Your task to perform on an android device: Play the last video I watched on Youtube Image 0: 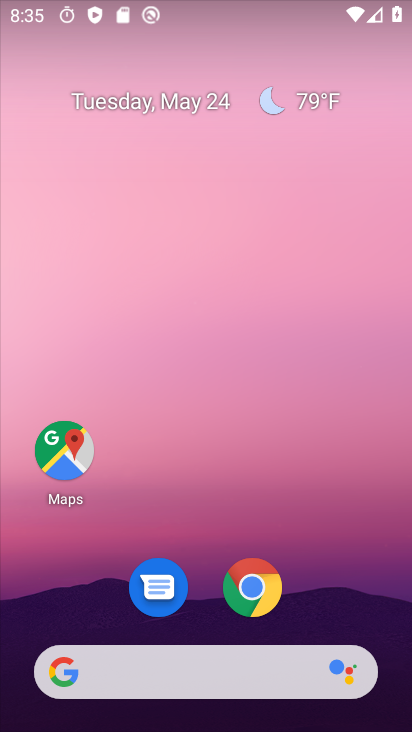
Step 0: drag from (342, 591) to (300, 133)
Your task to perform on an android device: Play the last video I watched on Youtube Image 1: 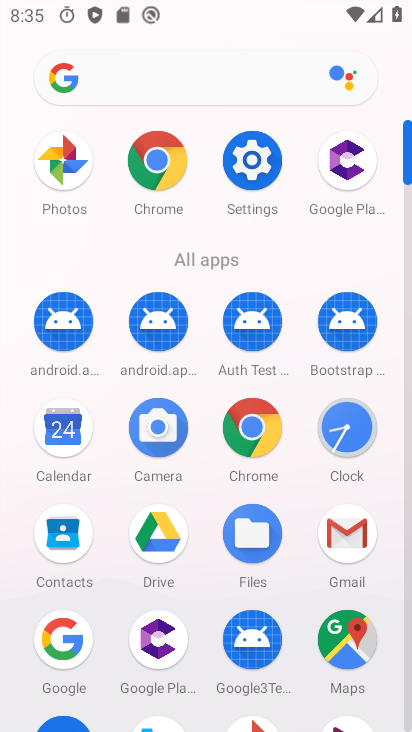
Step 1: drag from (285, 586) to (290, 283)
Your task to perform on an android device: Play the last video I watched on Youtube Image 2: 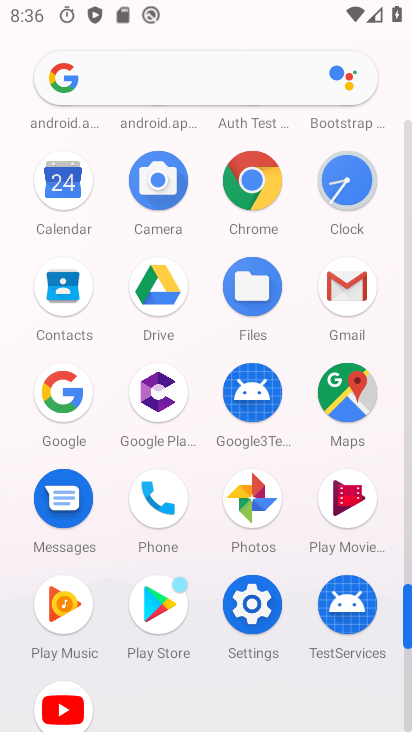
Step 2: drag from (295, 556) to (310, 393)
Your task to perform on an android device: Play the last video I watched on Youtube Image 3: 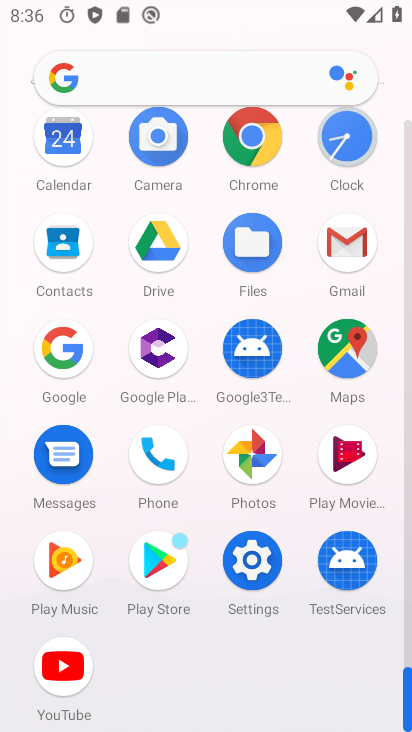
Step 3: click (63, 666)
Your task to perform on an android device: Play the last video I watched on Youtube Image 4: 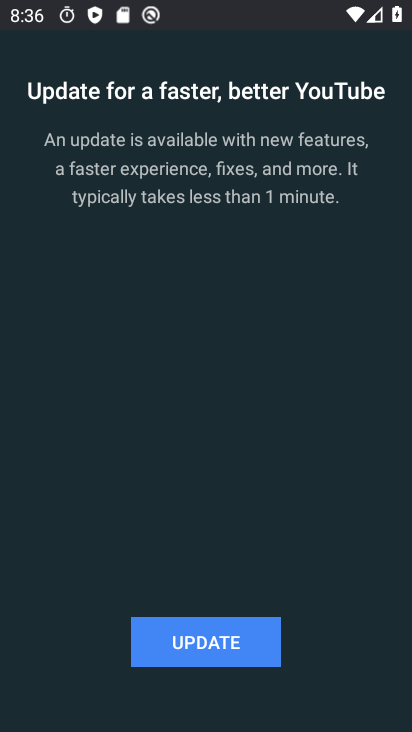
Step 4: click (192, 636)
Your task to perform on an android device: Play the last video I watched on Youtube Image 5: 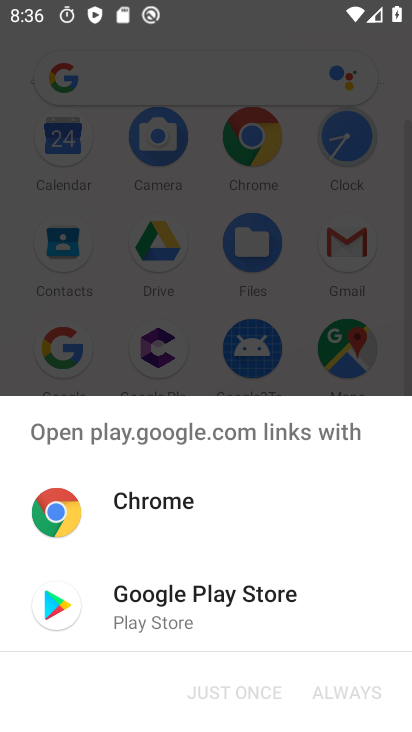
Step 5: click (174, 595)
Your task to perform on an android device: Play the last video I watched on Youtube Image 6: 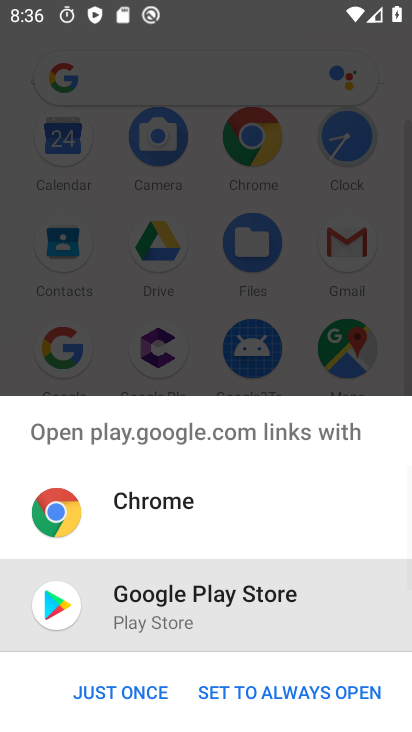
Step 6: click (123, 688)
Your task to perform on an android device: Play the last video I watched on Youtube Image 7: 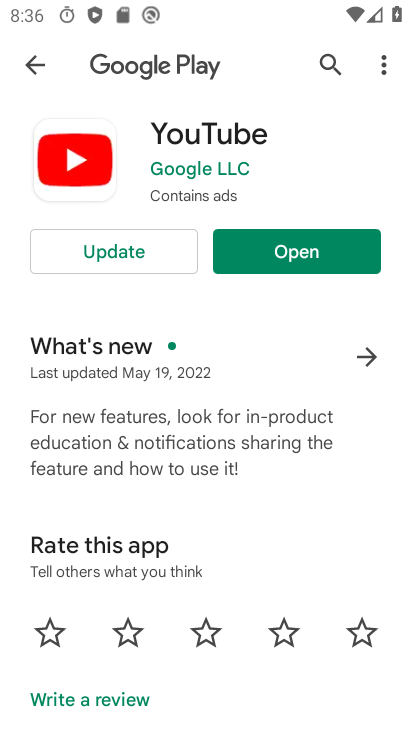
Step 7: click (135, 255)
Your task to perform on an android device: Play the last video I watched on Youtube Image 8: 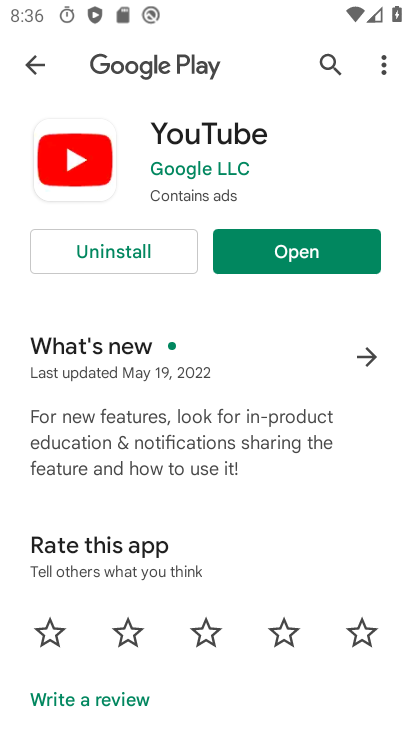
Step 8: click (277, 263)
Your task to perform on an android device: Play the last video I watched on Youtube Image 9: 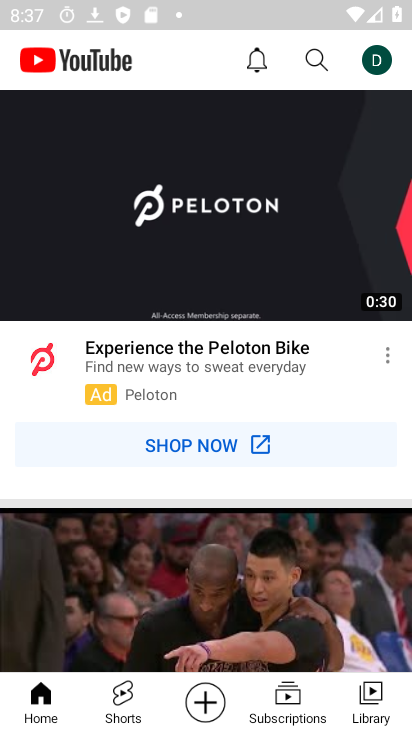
Step 9: click (371, 696)
Your task to perform on an android device: Play the last video I watched on Youtube Image 10: 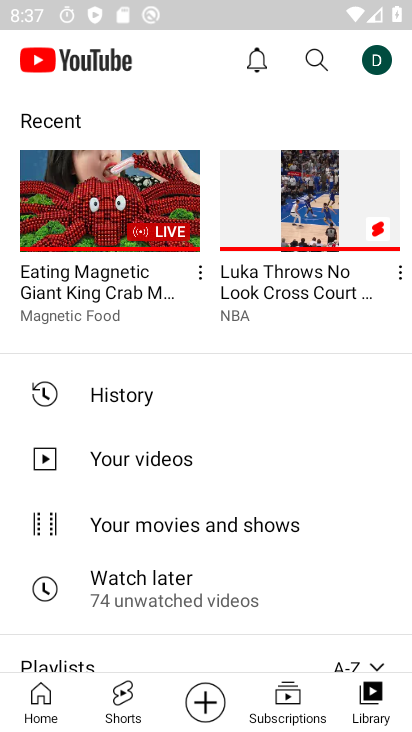
Step 10: click (106, 212)
Your task to perform on an android device: Play the last video I watched on Youtube Image 11: 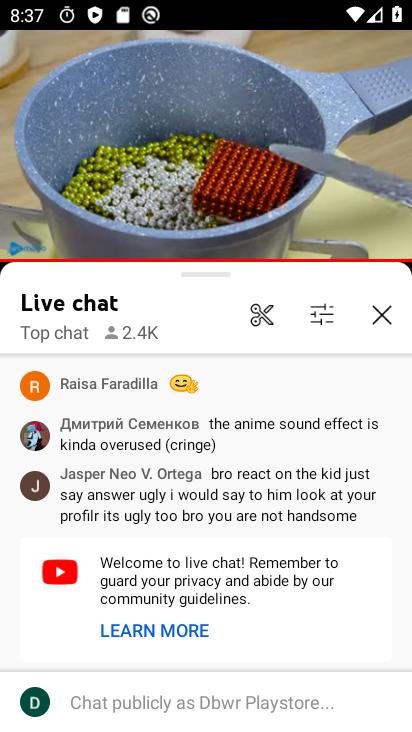
Step 11: click (220, 139)
Your task to perform on an android device: Play the last video I watched on Youtube Image 12: 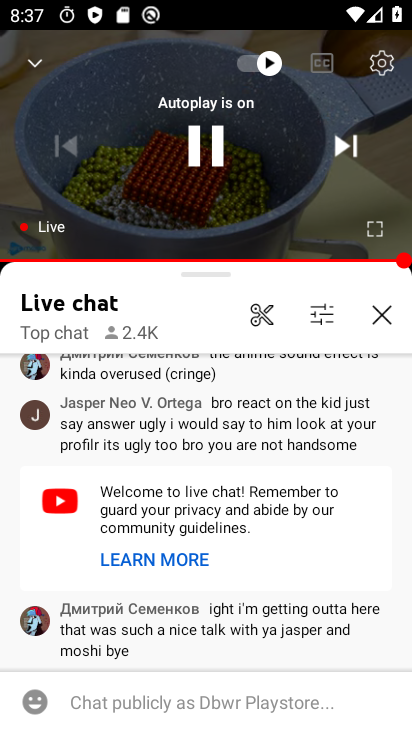
Step 12: click (220, 139)
Your task to perform on an android device: Play the last video I watched on Youtube Image 13: 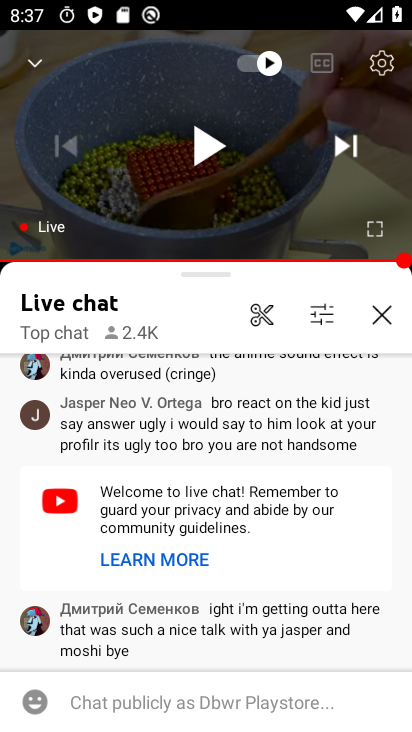
Step 13: task complete